Your task to perform on an android device: Open Chrome and go to the settings page Image 0: 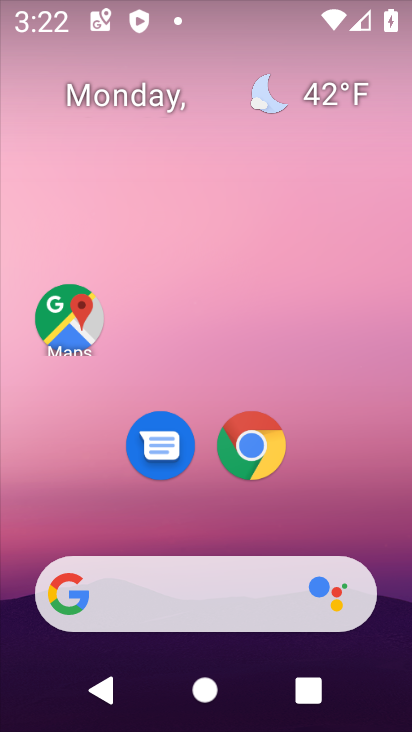
Step 0: drag from (28, 468) to (229, 44)
Your task to perform on an android device: Open Chrome and go to the settings page Image 1: 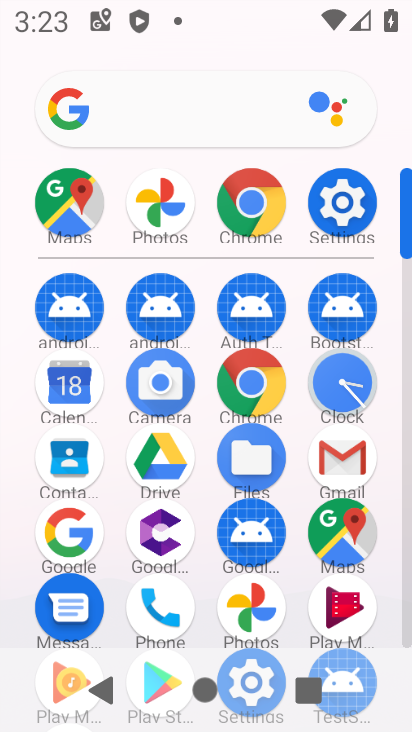
Step 1: click (257, 213)
Your task to perform on an android device: Open Chrome and go to the settings page Image 2: 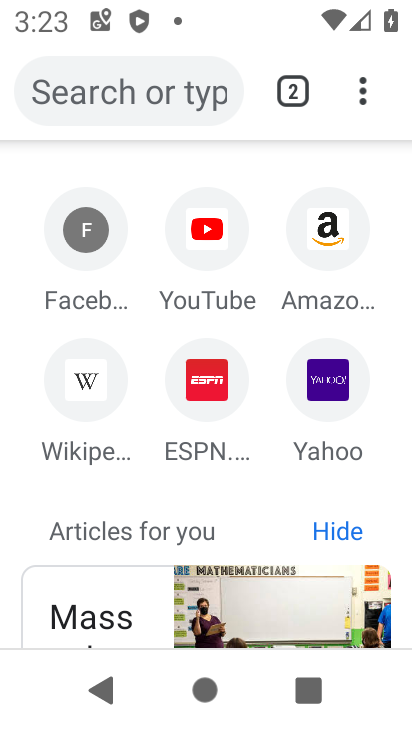
Step 2: click (364, 82)
Your task to perform on an android device: Open Chrome and go to the settings page Image 3: 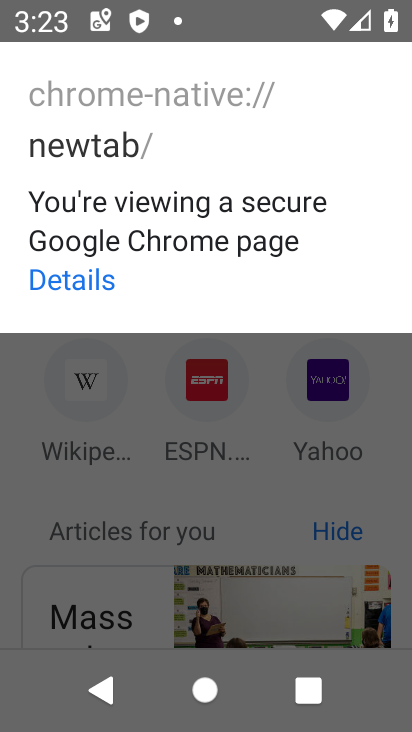
Step 3: click (255, 476)
Your task to perform on an android device: Open Chrome and go to the settings page Image 4: 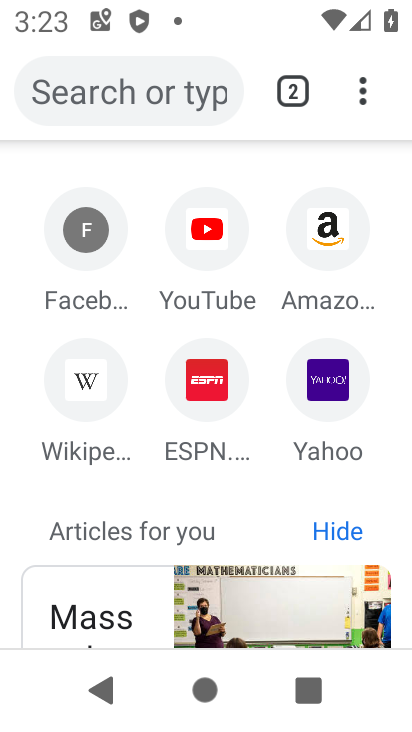
Step 4: click (360, 86)
Your task to perform on an android device: Open Chrome and go to the settings page Image 5: 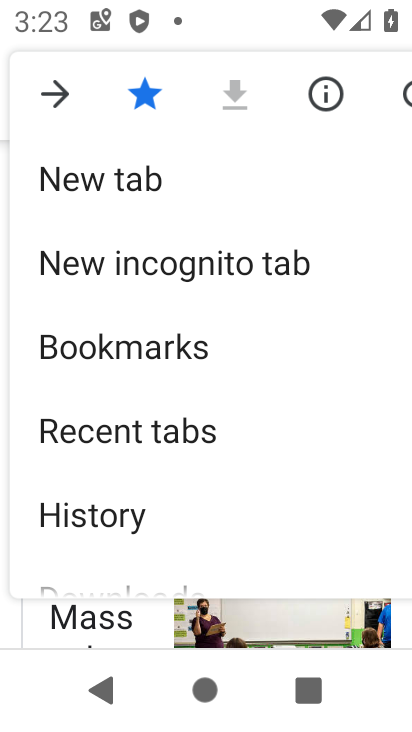
Step 5: drag from (144, 544) to (172, 138)
Your task to perform on an android device: Open Chrome and go to the settings page Image 6: 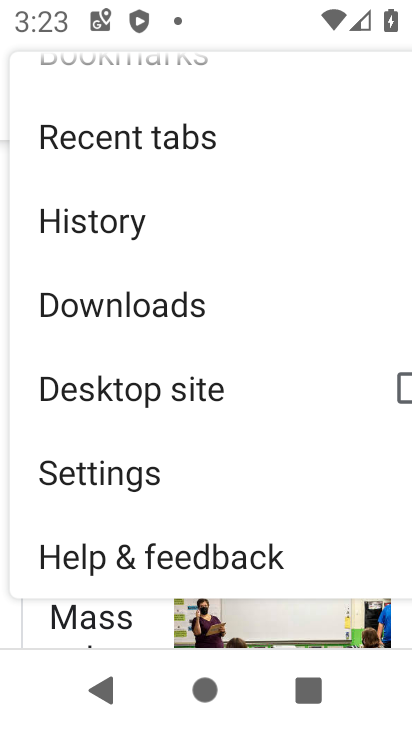
Step 6: click (120, 485)
Your task to perform on an android device: Open Chrome and go to the settings page Image 7: 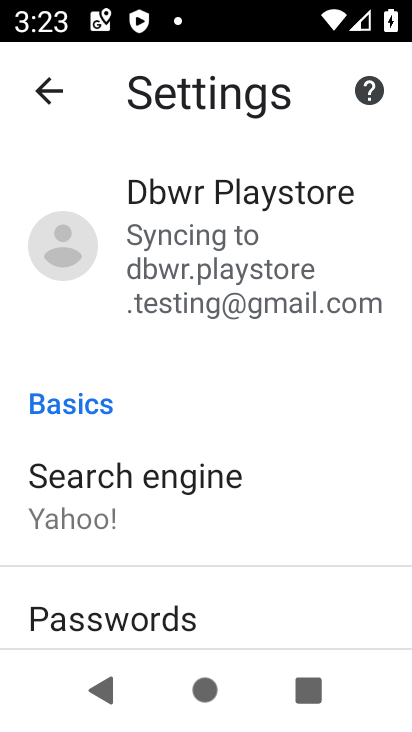
Step 7: task complete